Your task to perform on an android device: Go to privacy settings Image 0: 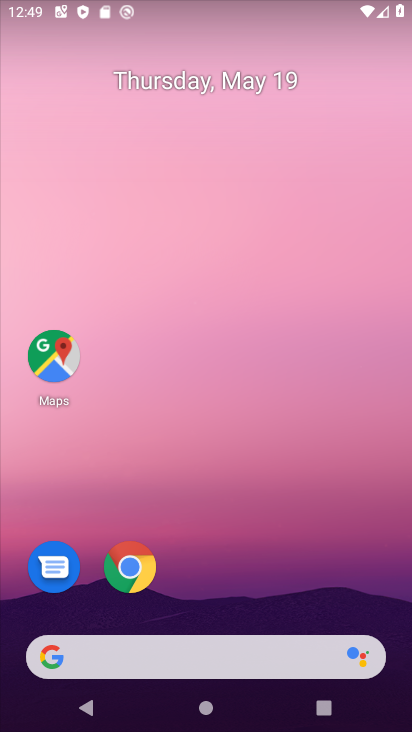
Step 0: press home button
Your task to perform on an android device: Go to privacy settings Image 1: 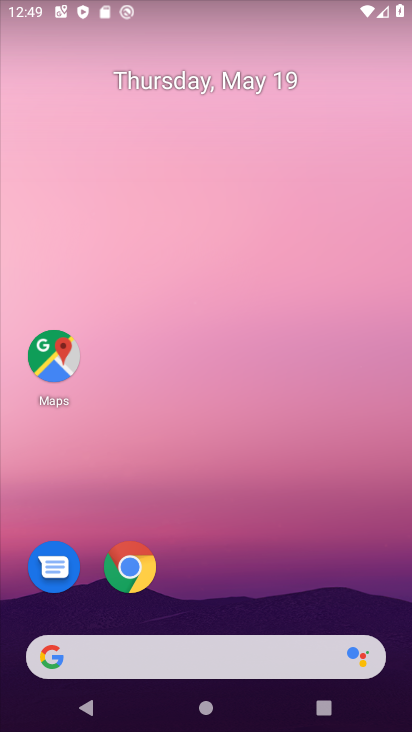
Step 1: drag from (40, 535) to (186, 145)
Your task to perform on an android device: Go to privacy settings Image 2: 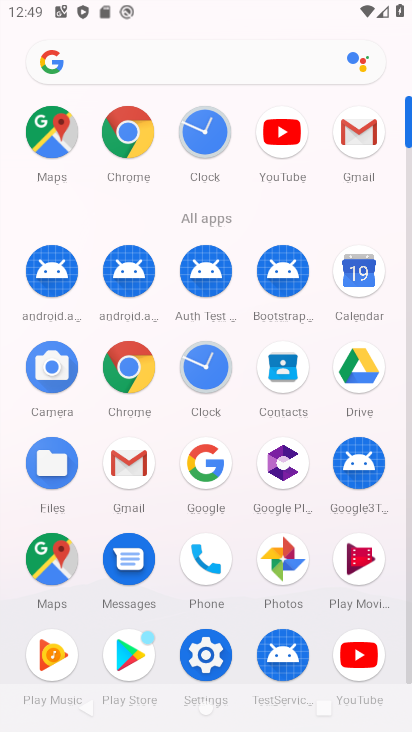
Step 2: click (215, 649)
Your task to perform on an android device: Go to privacy settings Image 3: 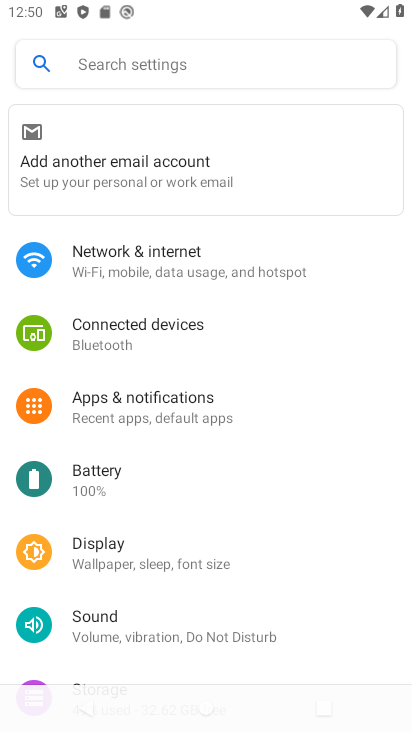
Step 3: drag from (29, 512) to (205, 212)
Your task to perform on an android device: Go to privacy settings Image 4: 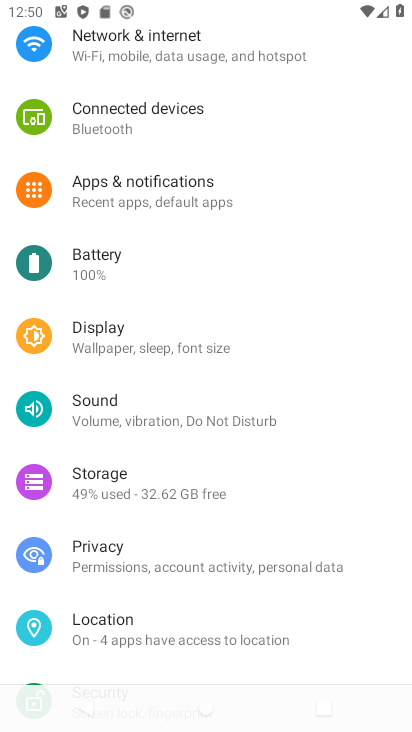
Step 4: click (140, 548)
Your task to perform on an android device: Go to privacy settings Image 5: 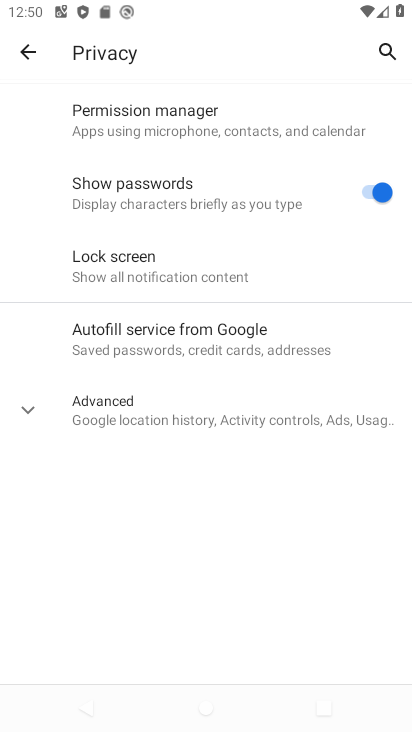
Step 5: task complete